Your task to perform on an android device: What's the weather going to be this weekend? Image 0: 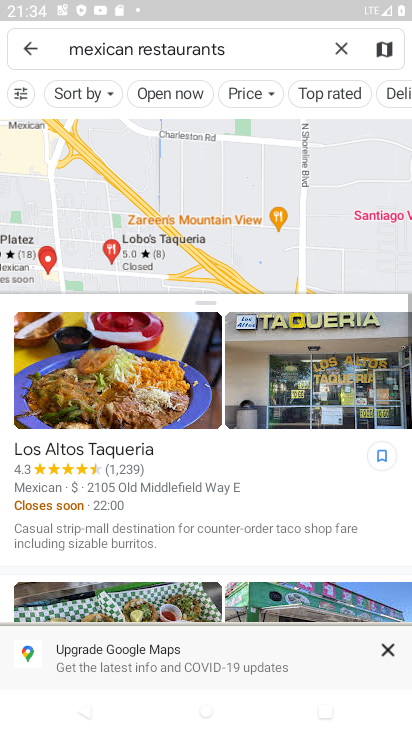
Step 0: press home button
Your task to perform on an android device: What's the weather going to be this weekend? Image 1: 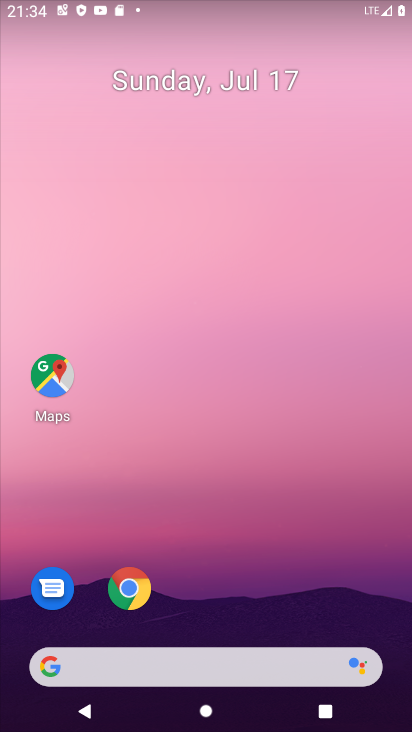
Step 1: drag from (363, 477) to (349, 85)
Your task to perform on an android device: What's the weather going to be this weekend? Image 2: 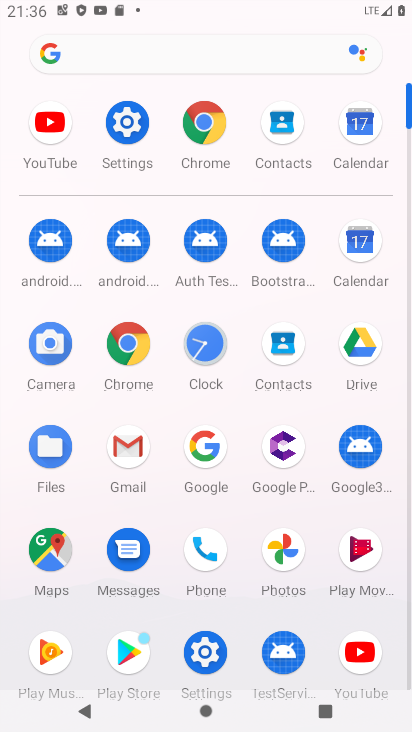
Step 2: click (141, 357)
Your task to perform on an android device: What's the weather going to be this weekend? Image 3: 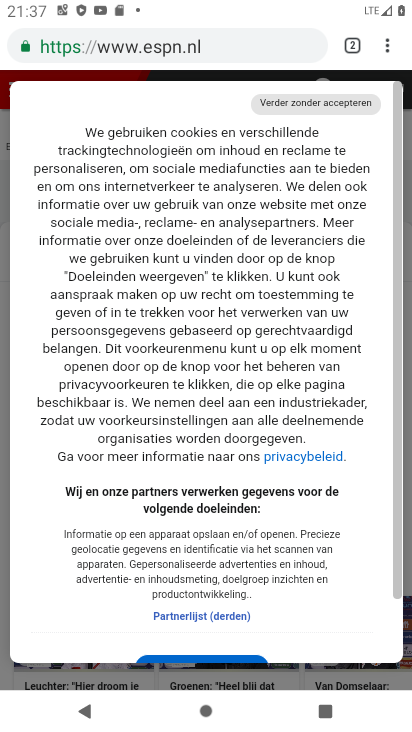
Step 3: click (152, 56)
Your task to perform on an android device: What's the weather going to be this weekend? Image 4: 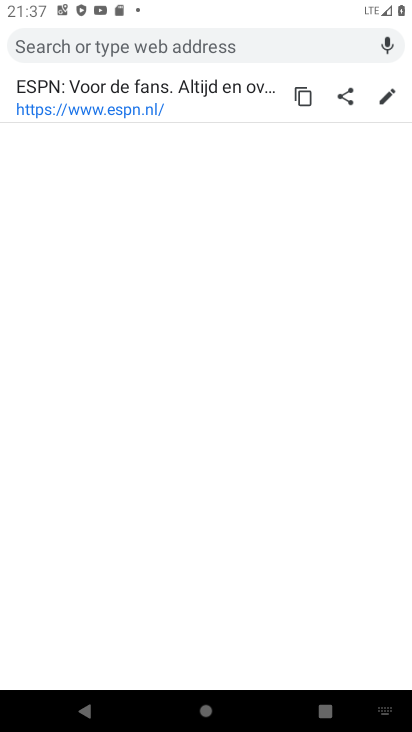
Step 4: type "What's the weather going to be this weekend?"
Your task to perform on an android device: What's the weather going to be this weekend? Image 5: 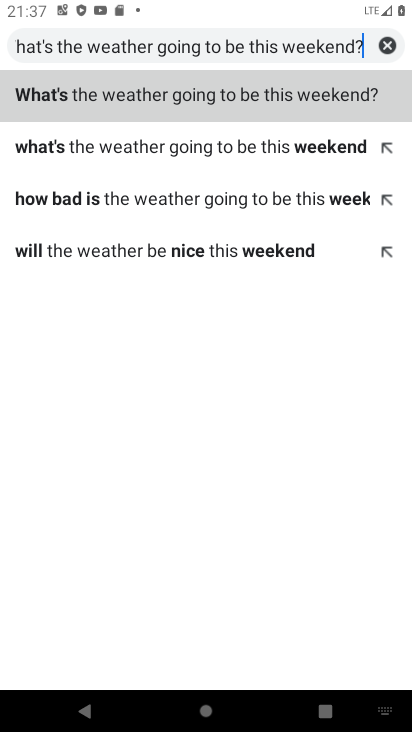
Step 5: type ""
Your task to perform on an android device: What's the weather going to be this weekend? Image 6: 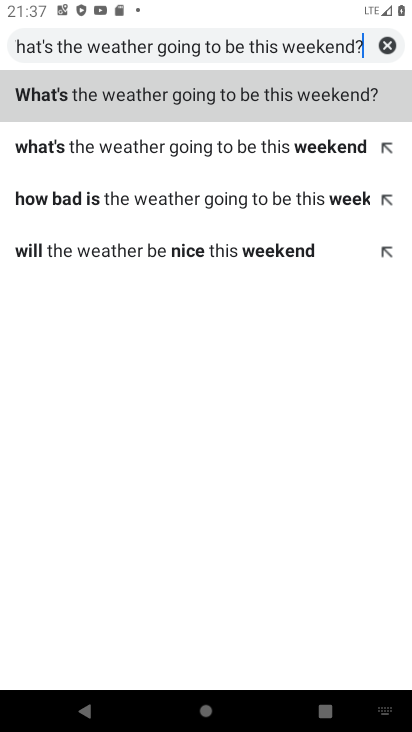
Step 6: click (54, 96)
Your task to perform on an android device: What's the weather going to be this weekend? Image 7: 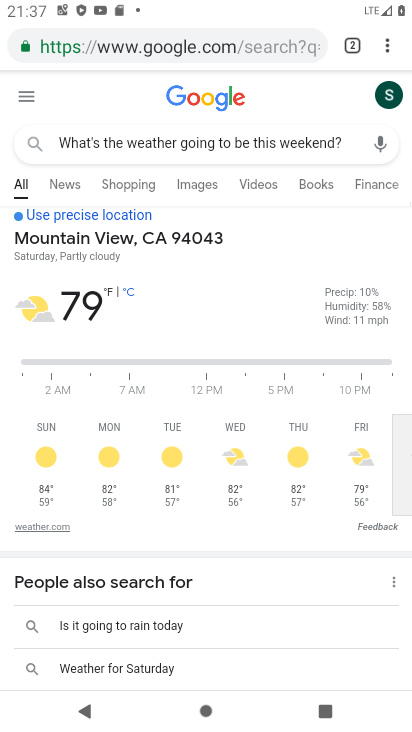
Step 7: task complete